Your task to perform on an android device: Go to Google Image 0: 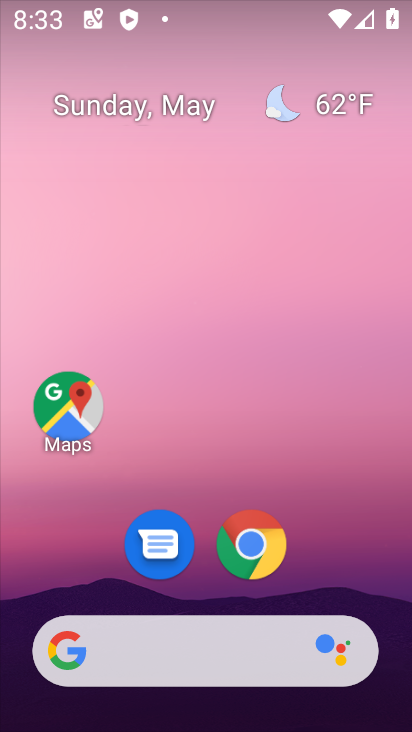
Step 0: drag from (292, 597) to (184, 1)
Your task to perform on an android device: Go to Google Image 1: 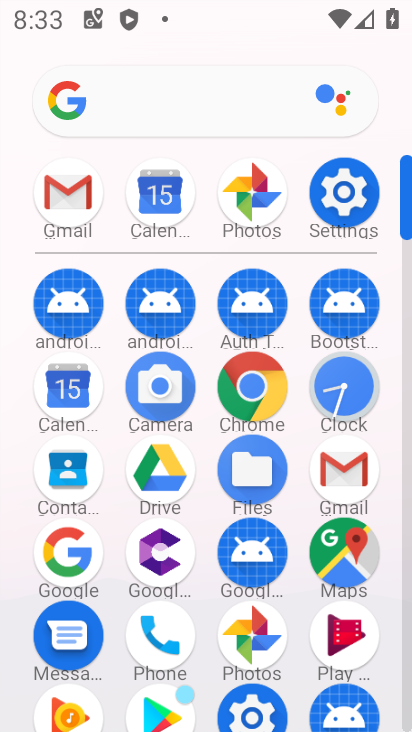
Step 1: click (65, 576)
Your task to perform on an android device: Go to Google Image 2: 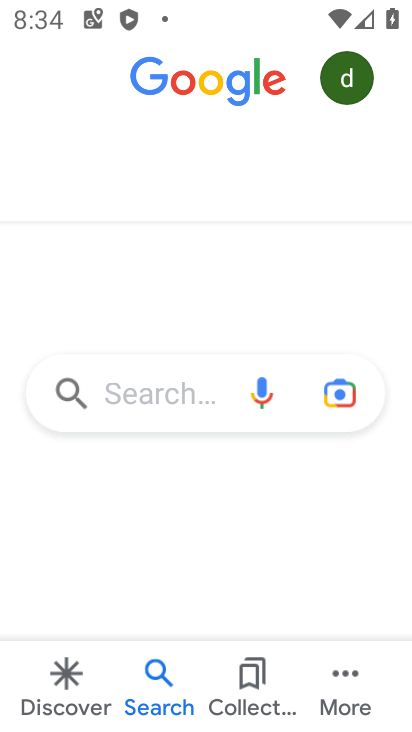
Step 2: task complete